Your task to perform on an android device: Show me popular games on the Play Store Image 0: 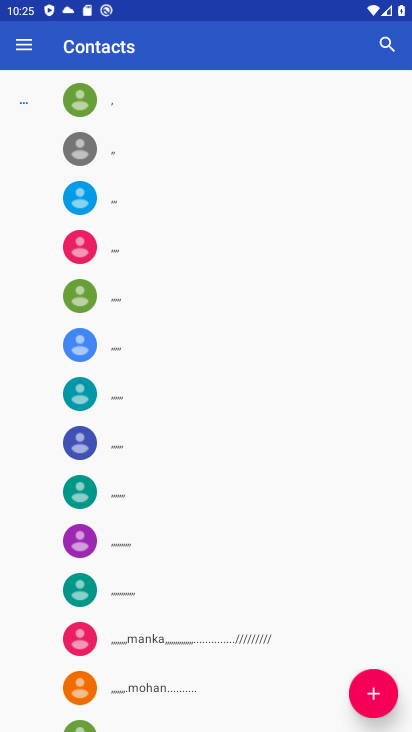
Step 0: press home button
Your task to perform on an android device: Show me popular games on the Play Store Image 1: 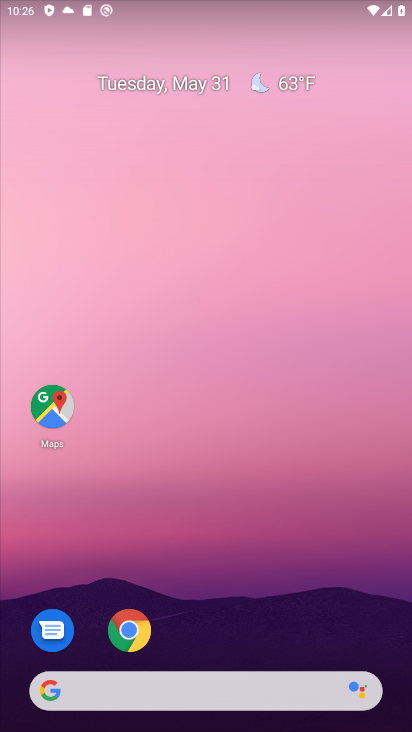
Step 1: drag from (218, 607) to (159, 108)
Your task to perform on an android device: Show me popular games on the Play Store Image 2: 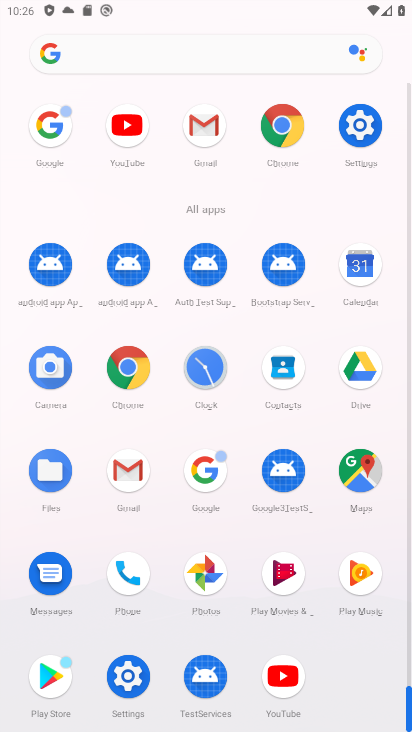
Step 2: click (56, 685)
Your task to perform on an android device: Show me popular games on the Play Store Image 3: 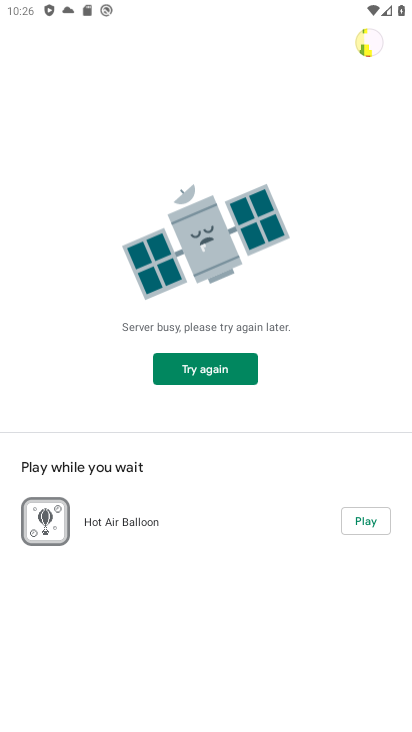
Step 3: task complete